Your task to perform on an android device: Open CNN.com Image 0: 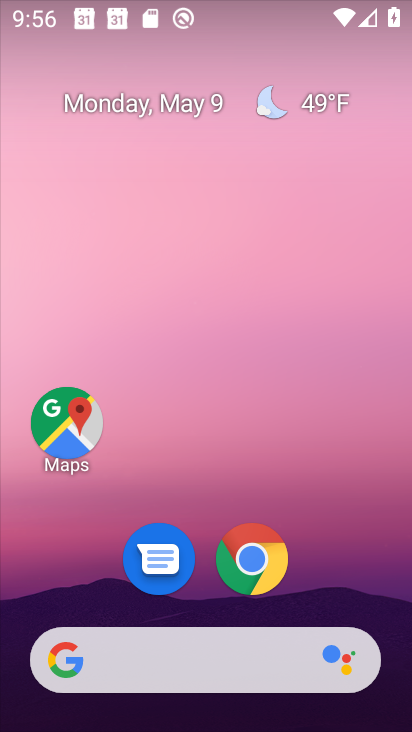
Step 0: click (251, 554)
Your task to perform on an android device: Open CNN.com Image 1: 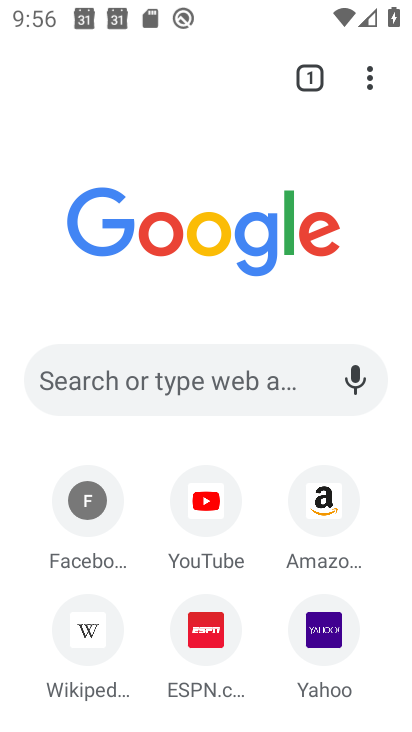
Step 1: click (190, 371)
Your task to perform on an android device: Open CNN.com Image 2: 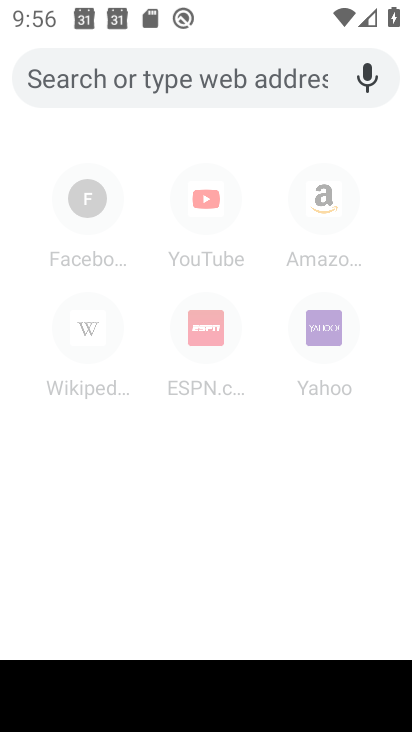
Step 2: type "CNN.com"
Your task to perform on an android device: Open CNN.com Image 3: 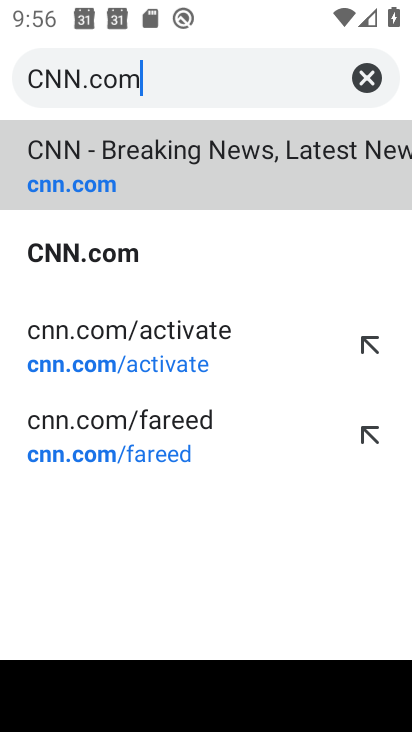
Step 3: click (253, 166)
Your task to perform on an android device: Open CNN.com Image 4: 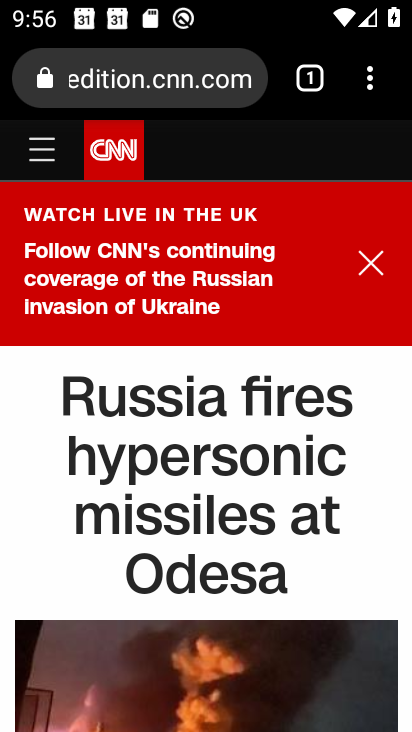
Step 4: task complete